Your task to perform on an android device: toggle translation in the chrome app Image 0: 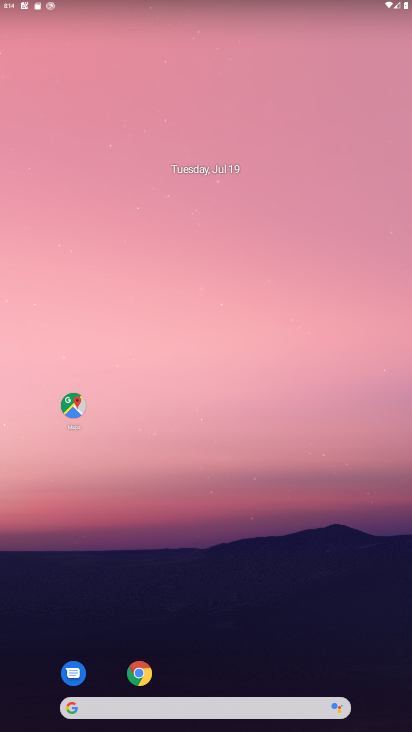
Step 0: drag from (243, 670) to (267, 172)
Your task to perform on an android device: toggle translation in the chrome app Image 1: 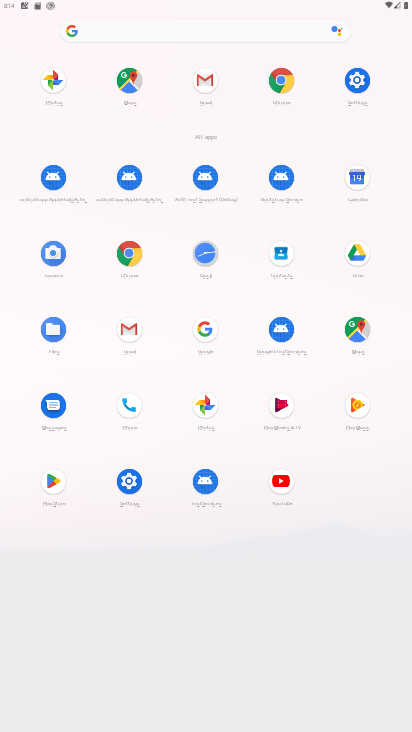
Step 1: click (135, 264)
Your task to perform on an android device: toggle translation in the chrome app Image 2: 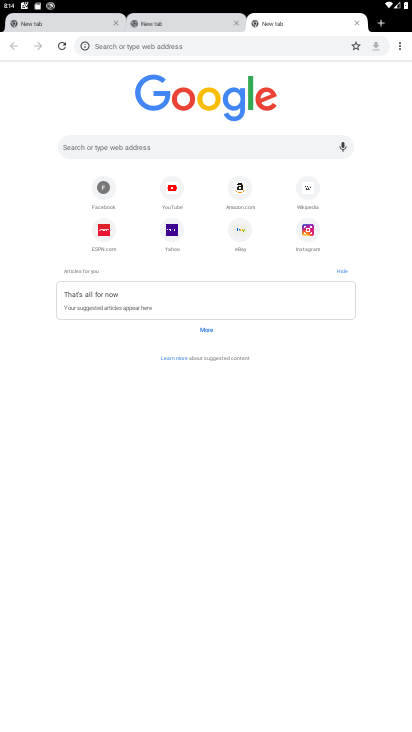
Step 2: click (402, 38)
Your task to perform on an android device: toggle translation in the chrome app Image 3: 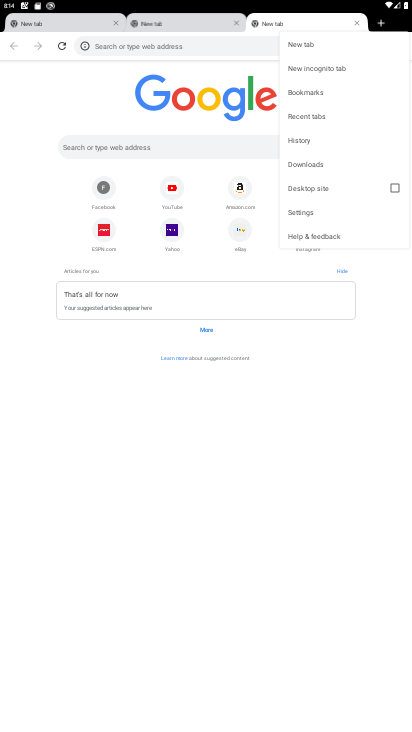
Step 3: click (305, 213)
Your task to perform on an android device: toggle translation in the chrome app Image 4: 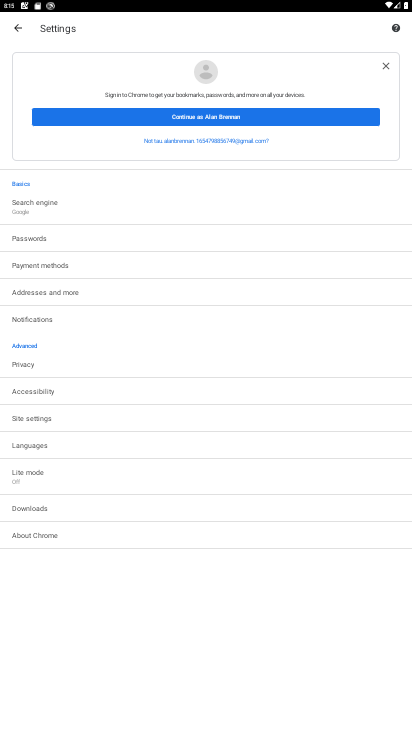
Step 4: click (39, 440)
Your task to perform on an android device: toggle translation in the chrome app Image 5: 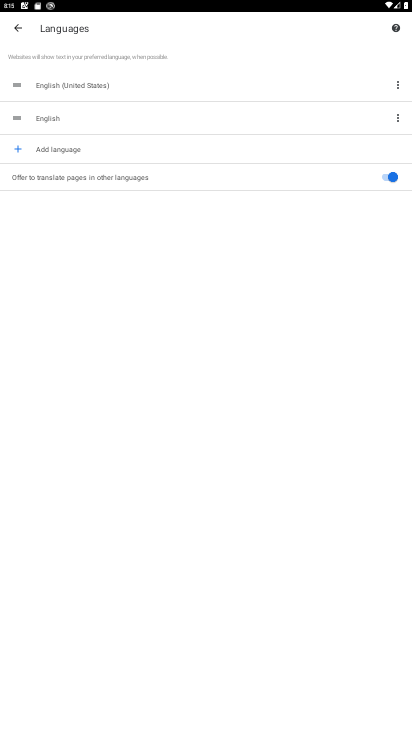
Step 5: click (389, 174)
Your task to perform on an android device: toggle translation in the chrome app Image 6: 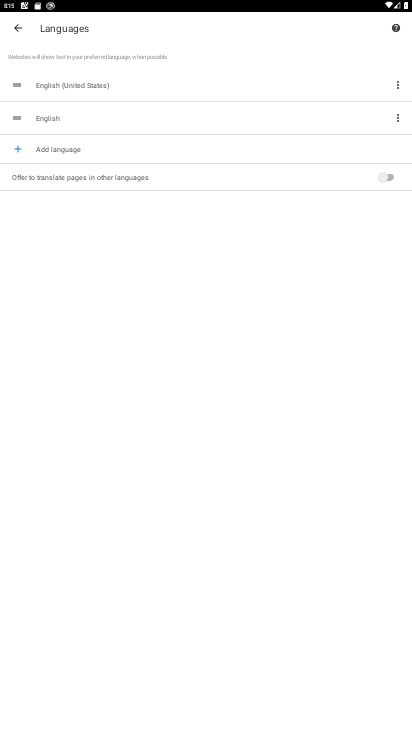
Step 6: task complete